Your task to perform on an android device: set an alarm Image 0: 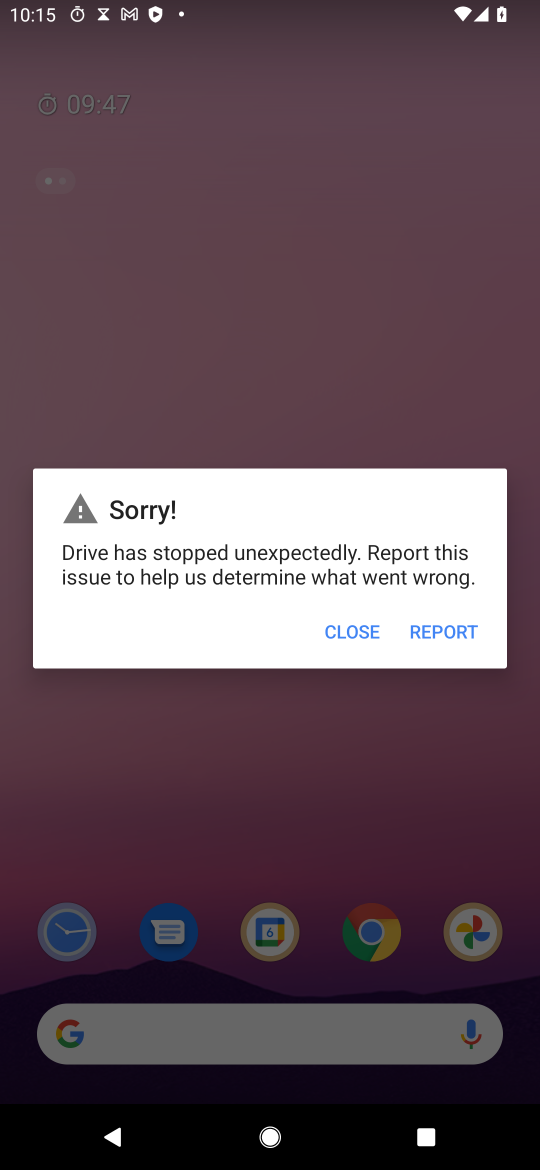
Step 0: press back button
Your task to perform on an android device: set an alarm Image 1: 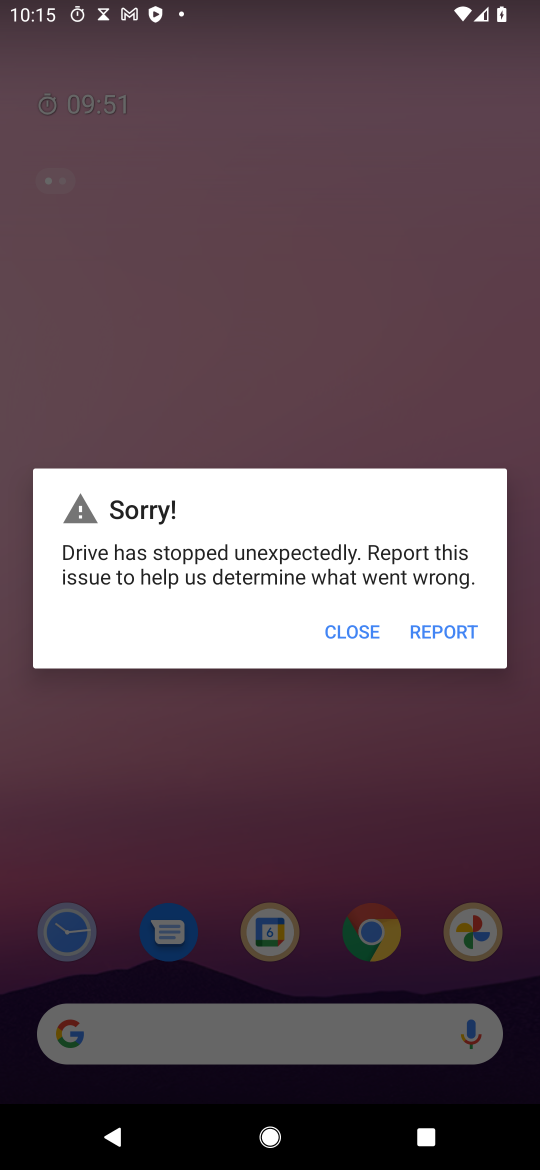
Step 1: press home button
Your task to perform on an android device: set an alarm Image 2: 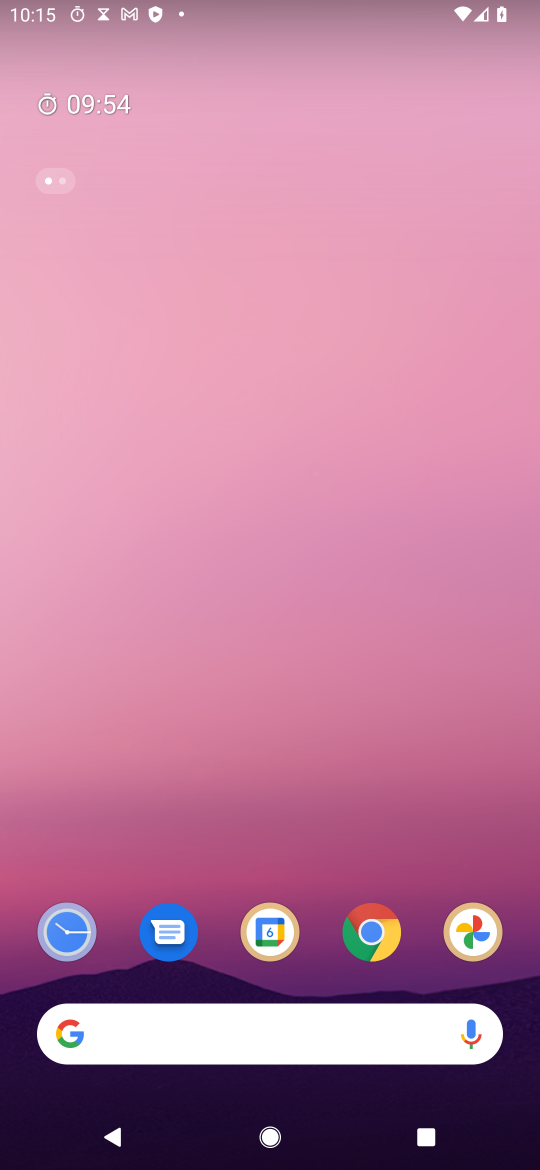
Step 2: click (72, 953)
Your task to perform on an android device: set an alarm Image 3: 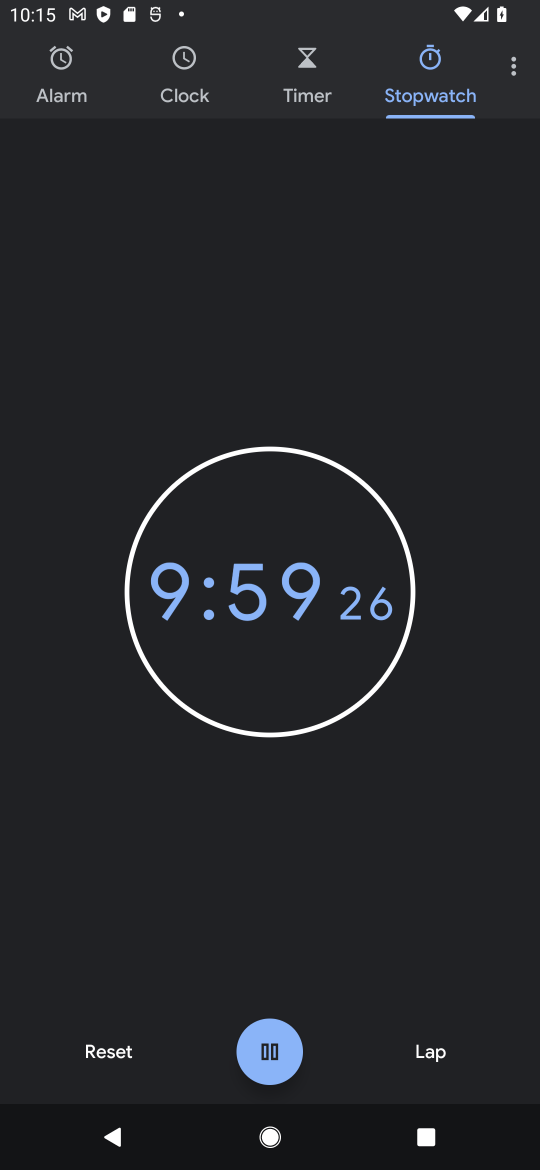
Step 3: click (60, 82)
Your task to perform on an android device: set an alarm Image 4: 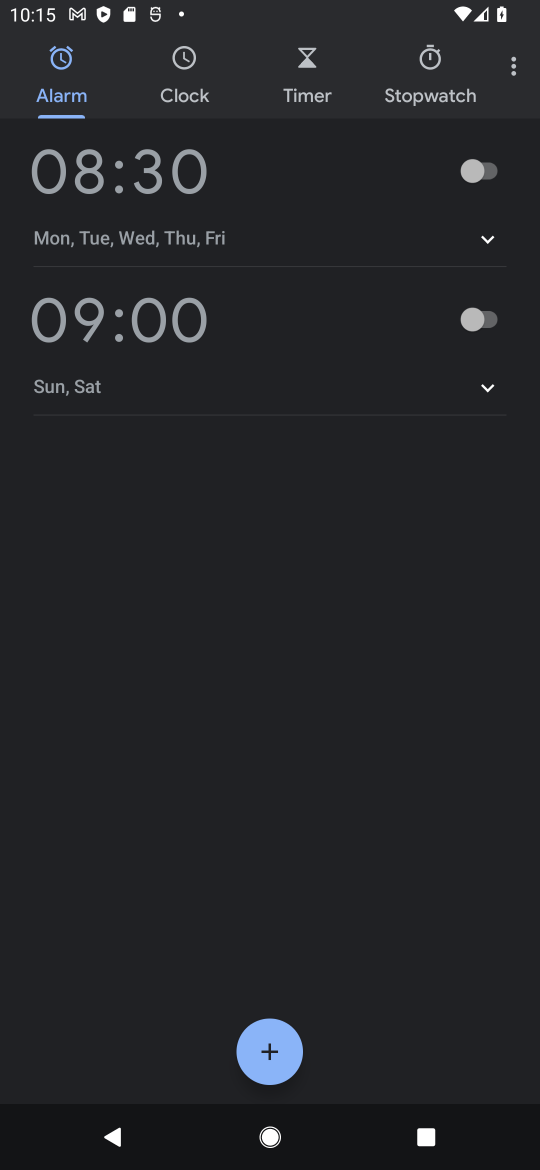
Step 4: click (258, 1062)
Your task to perform on an android device: set an alarm Image 5: 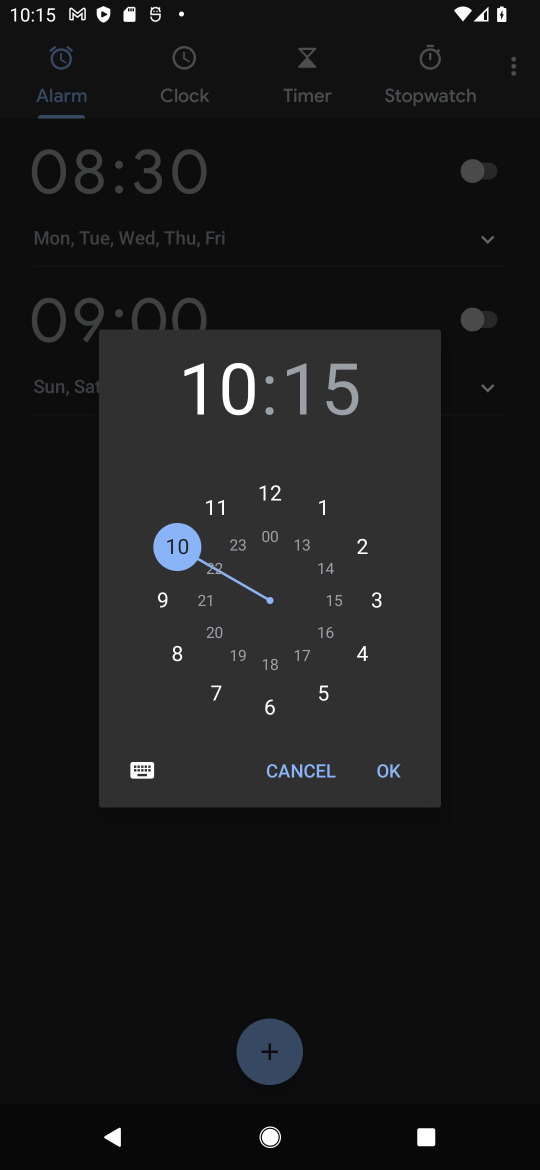
Step 5: click (390, 784)
Your task to perform on an android device: set an alarm Image 6: 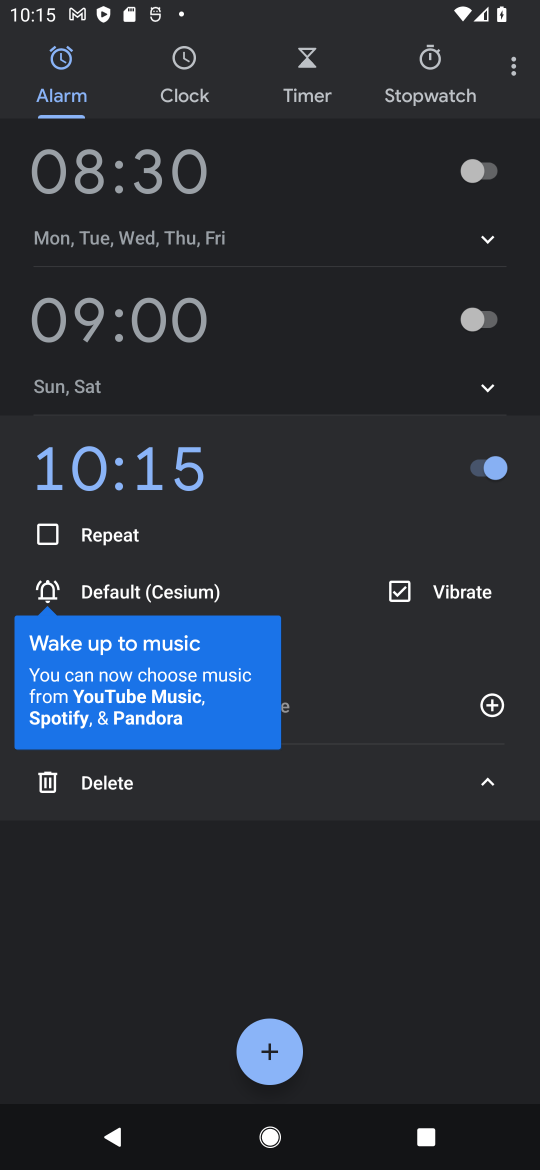
Step 6: task complete